Your task to perform on an android device: turn off picture-in-picture Image 0: 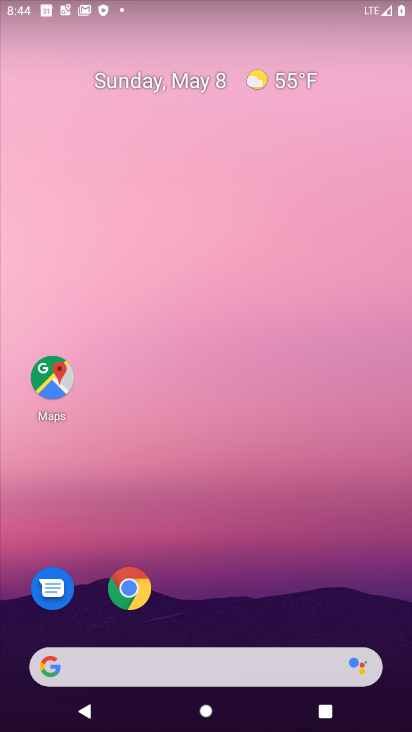
Step 0: drag from (336, 611) to (188, 84)
Your task to perform on an android device: turn off picture-in-picture Image 1: 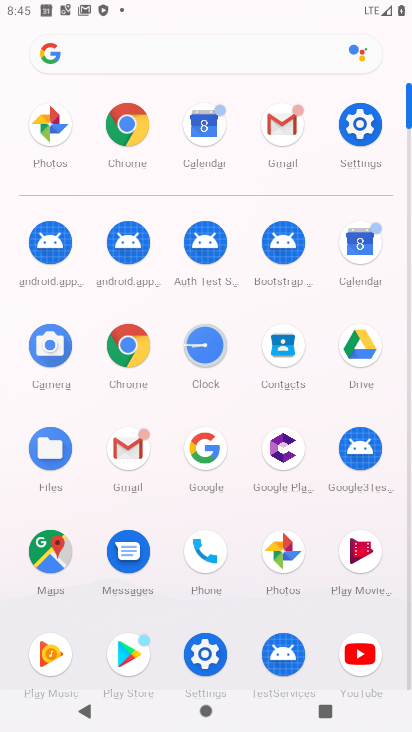
Step 1: click (115, 128)
Your task to perform on an android device: turn off picture-in-picture Image 2: 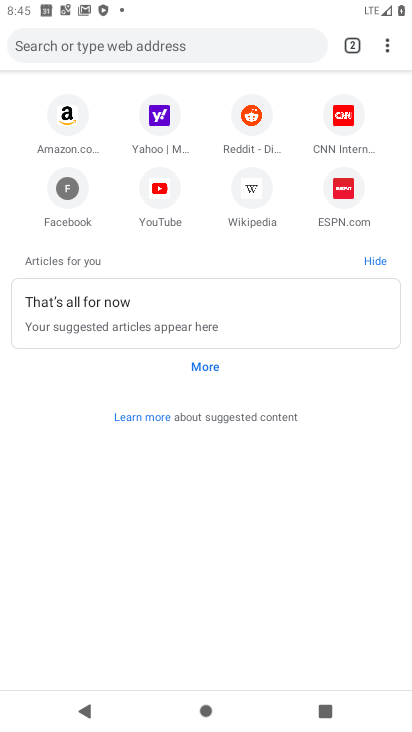
Step 2: task complete